Your task to perform on an android device: turn off smart reply in the gmail app Image 0: 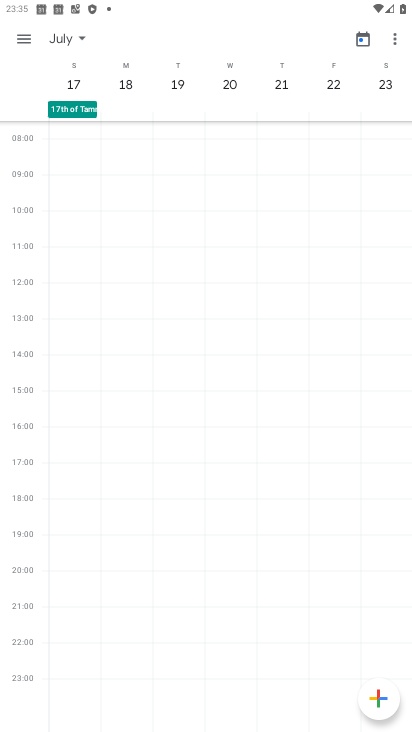
Step 0: press back button
Your task to perform on an android device: turn off smart reply in the gmail app Image 1: 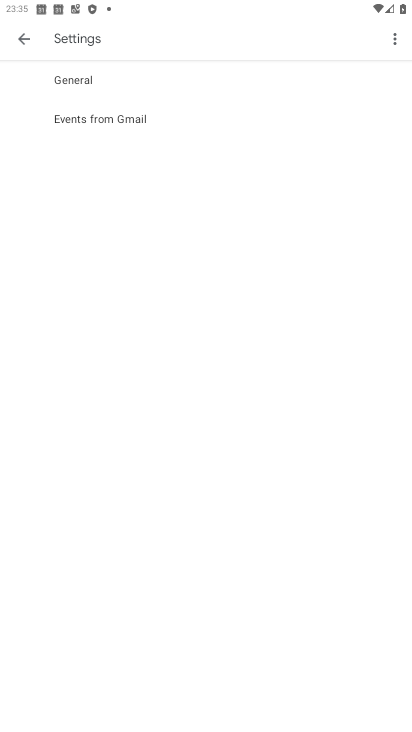
Step 1: press back button
Your task to perform on an android device: turn off smart reply in the gmail app Image 2: 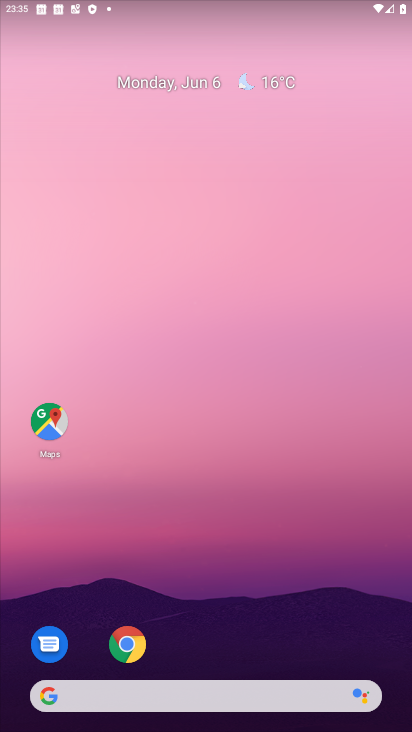
Step 2: drag from (231, 561) to (202, 62)
Your task to perform on an android device: turn off smart reply in the gmail app Image 3: 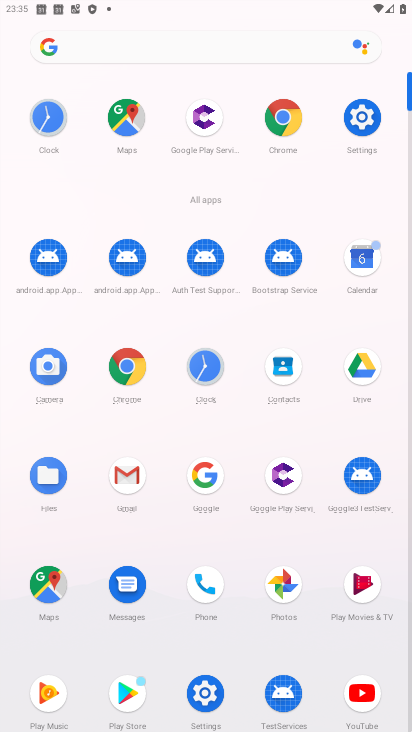
Step 3: click (123, 470)
Your task to perform on an android device: turn off smart reply in the gmail app Image 4: 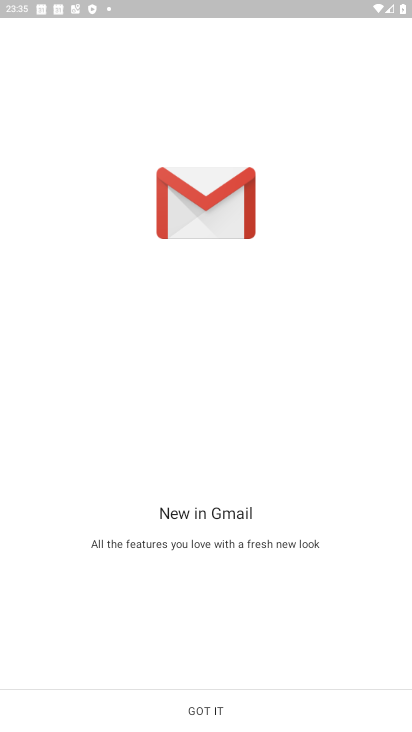
Step 4: click (213, 696)
Your task to perform on an android device: turn off smart reply in the gmail app Image 5: 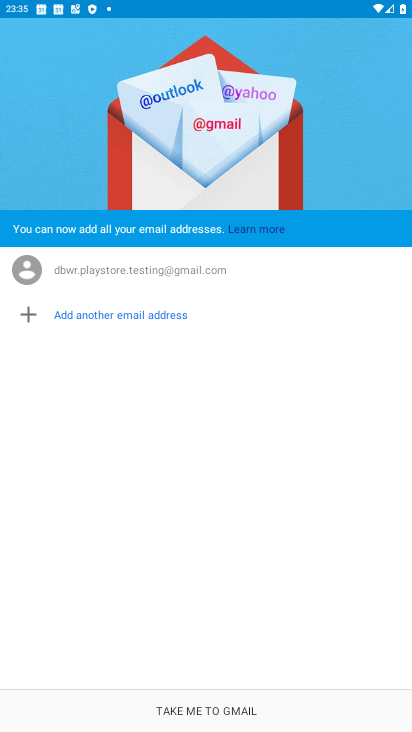
Step 5: click (202, 712)
Your task to perform on an android device: turn off smart reply in the gmail app Image 6: 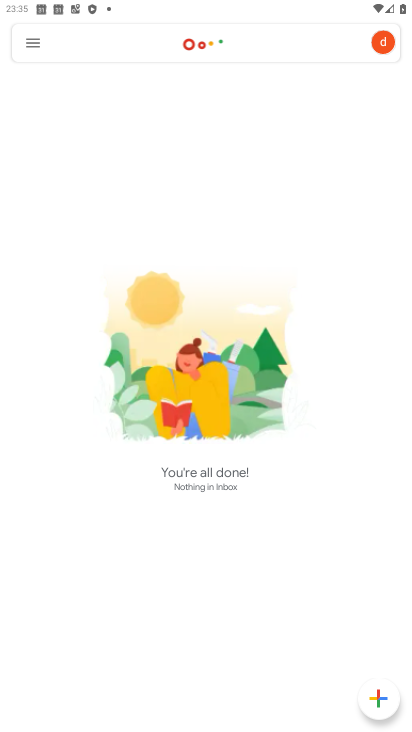
Step 6: click (35, 36)
Your task to perform on an android device: turn off smart reply in the gmail app Image 7: 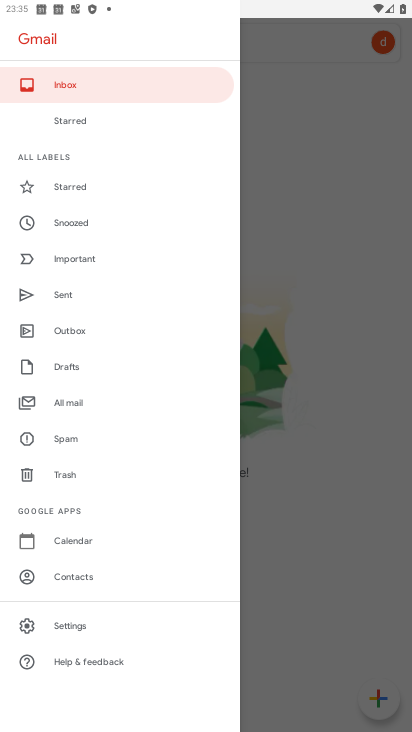
Step 7: click (73, 619)
Your task to perform on an android device: turn off smart reply in the gmail app Image 8: 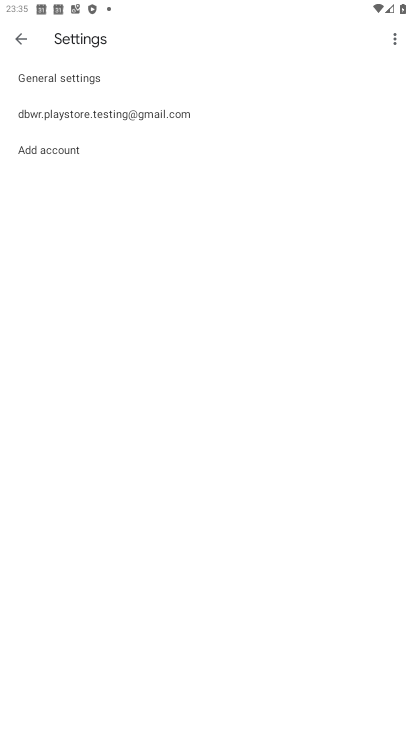
Step 8: click (145, 103)
Your task to perform on an android device: turn off smart reply in the gmail app Image 9: 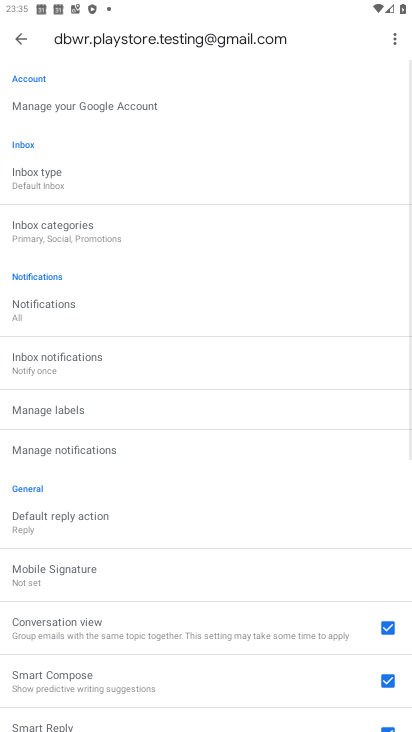
Step 9: drag from (232, 536) to (208, 125)
Your task to perform on an android device: turn off smart reply in the gmail app Image 10: 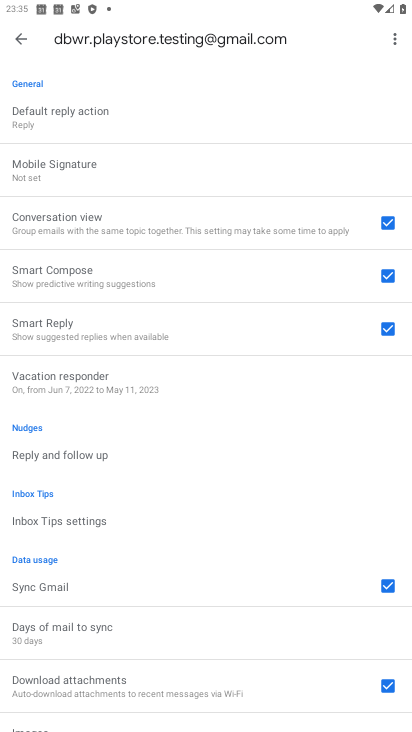
Step 10: click (381, 323)
Your task to perform on an android device: turn off smart reply in the gmail app Image 11: 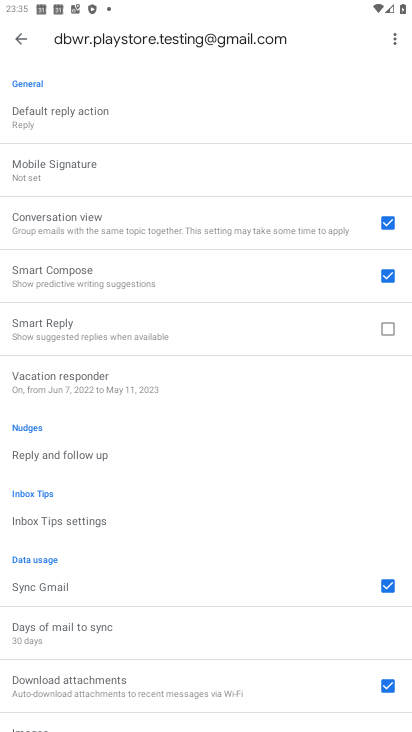
Step 11: task complete